Your task to perform on an android device: Open the Play Movies app and select the watchlist tab. Image 0: 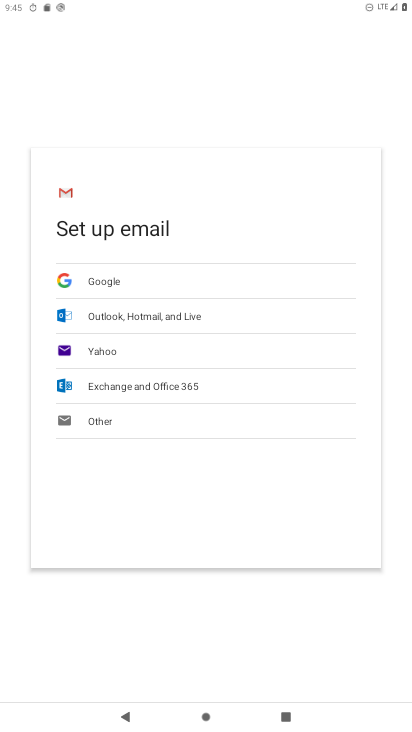
Step 0: press home button
Your task to perform on an android device: Open the Play Movies app and select the watchlist tab. Image 1: 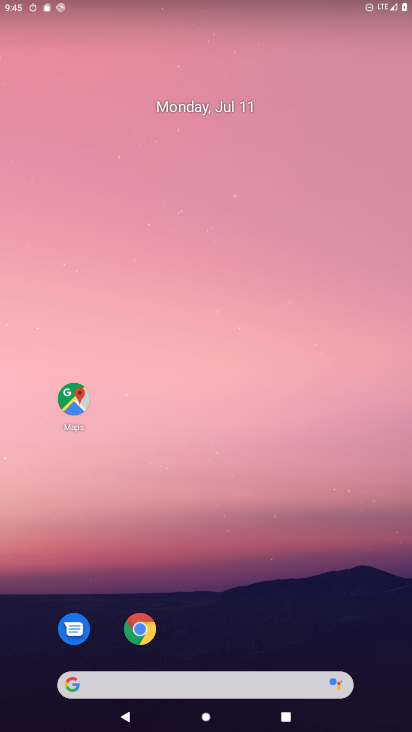
Step 1: drag from (217, 643) to (222, 105)
Your task to perform on an android device: Open the Play Movies app and select the watchlist tab. Image 2: 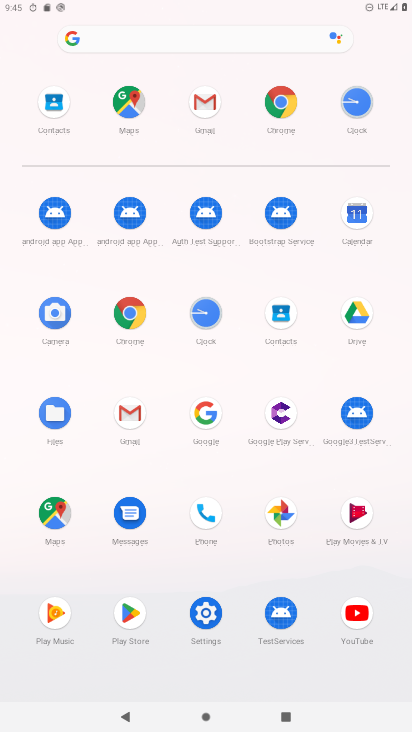
Step 2: click (343, 529)
Your task to perform on an android device: Open the Play Movies app and select the watchlist tab. Image 3: 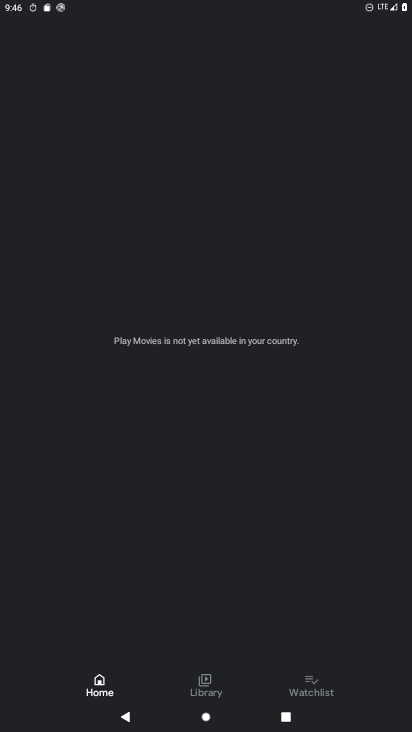
Step 3: click (328, 702)
Your task to perform on an android device: Open the Play Movies app and select the watchlist tab. Image 4: 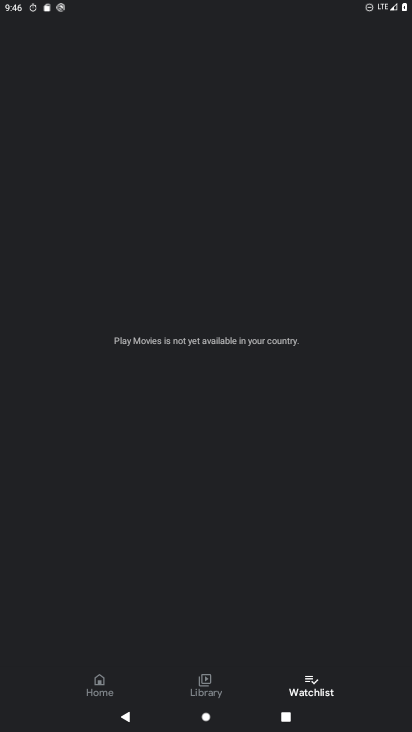
Step 4: task complete